Your task to perform on an android device: toggle location history Image 0: 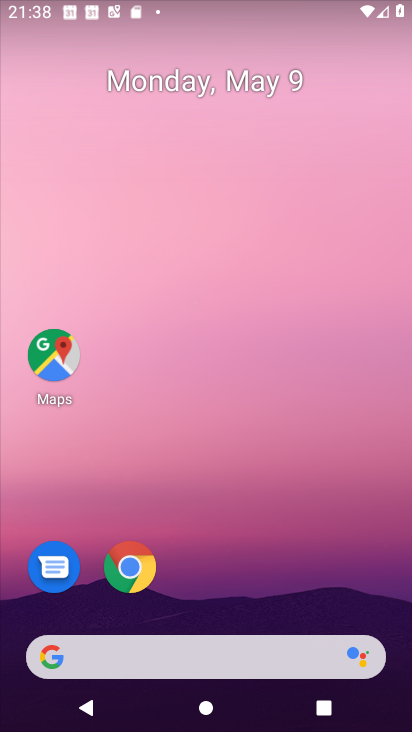
Step 0: drag from (228, 604) to (342, 130)
Your task to perform on an android device: toggle location history Image 1: 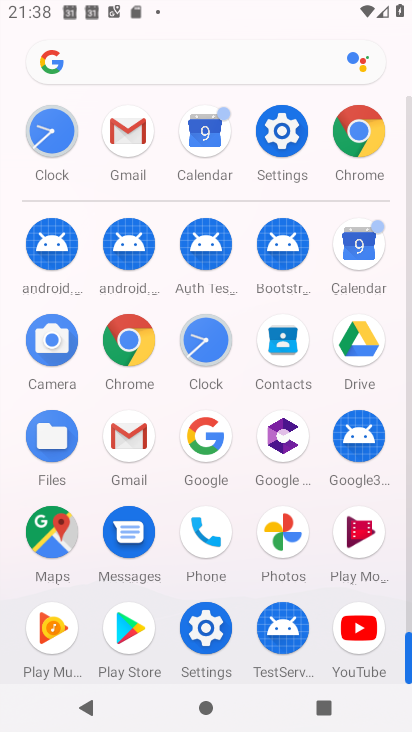
Step 1: drag from (170, 633) to (170, 253)
Your task to perform on an android device: toggle location history Image 2: 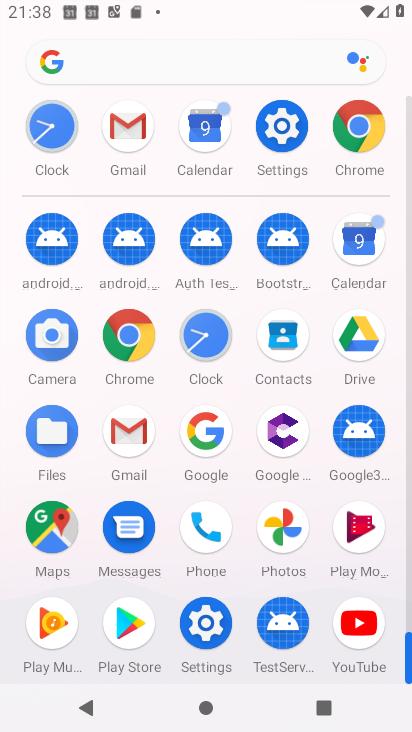
Step 2: click (194, 620)
Your task to perform on an android device: toggle location history Image 3: 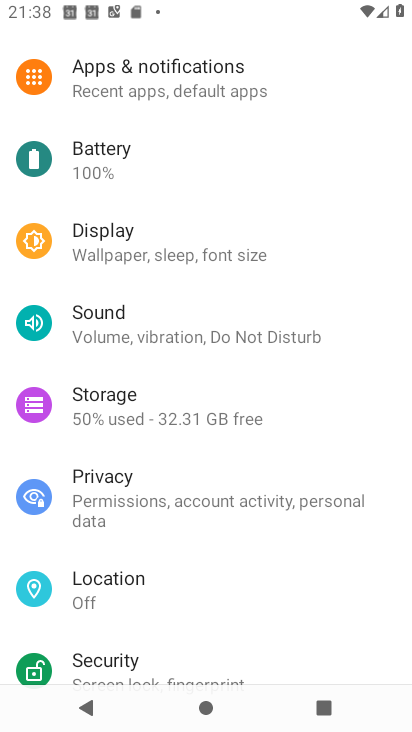
Step 3: drag from (232, 594) to (341, 173)
Your task to perform on an android device: toggle location history Image 4: 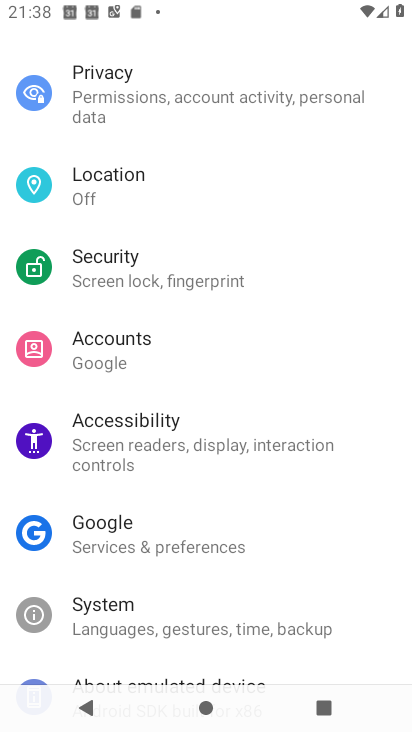
Step 4: click (141, 190)
Your task to perform on an android device: toggle location history Image 5: 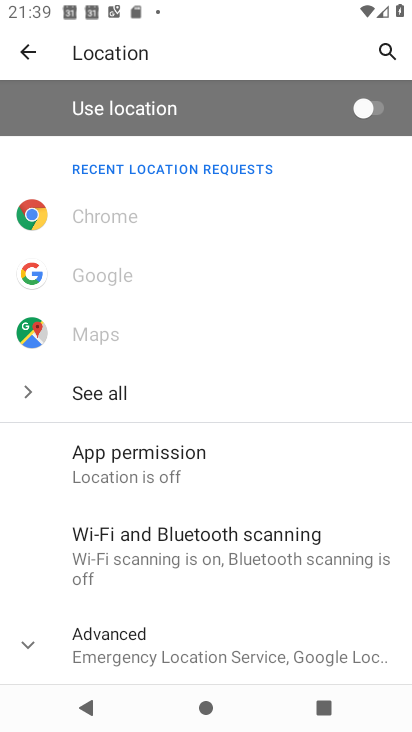
Step 5: drag from (163, 596) to (267, 258)
Your task to perform on an android device: toggle location history Image 6: 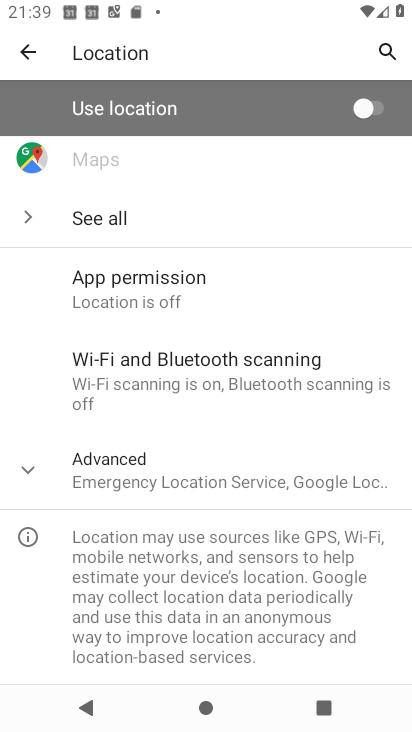
Step 6: click (187, 531)
Your task to perform on an android device: toggle location history Image 7: 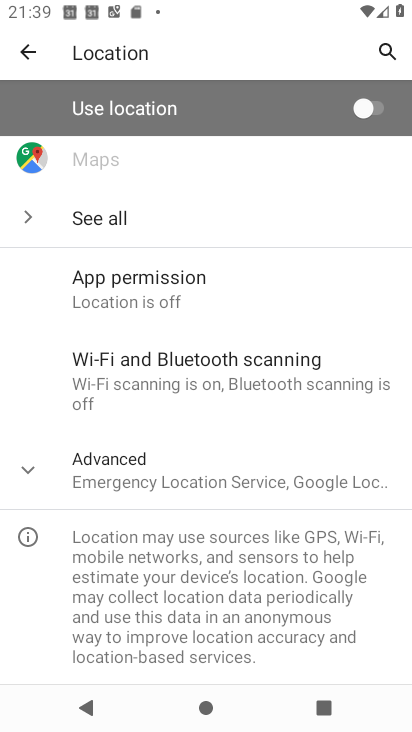
Step 7: click (152, 468)
Your task to perform on an android device: toggle location history Image 8: 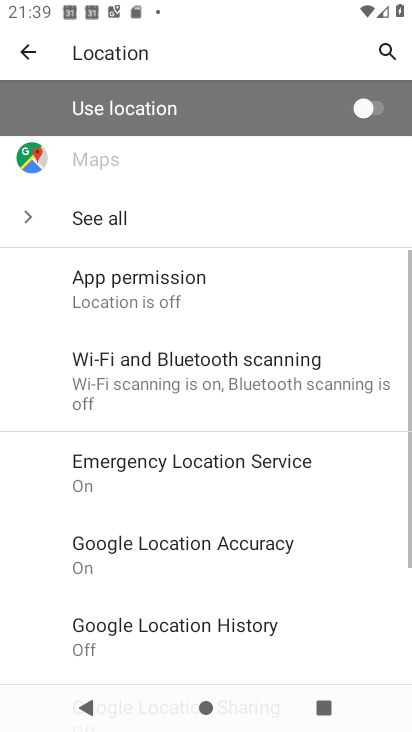
Step 8: drag from (268, 543) to (322, 272)
Your task to perform on an android device: toggle location history Image 9: 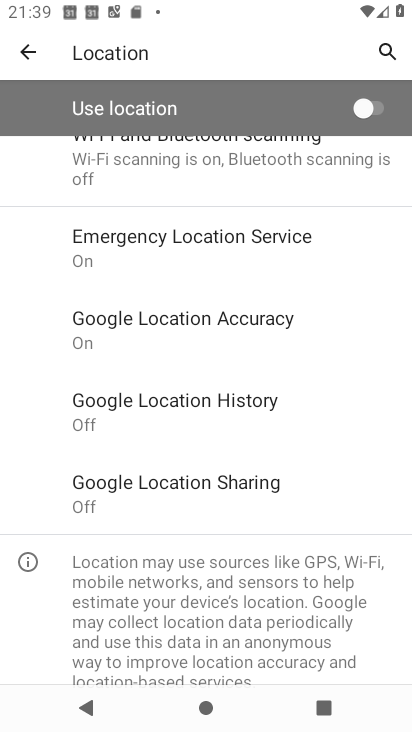
Step 9: click (274, 403)
Your task to perform on an android device: toggle location history Image 10: 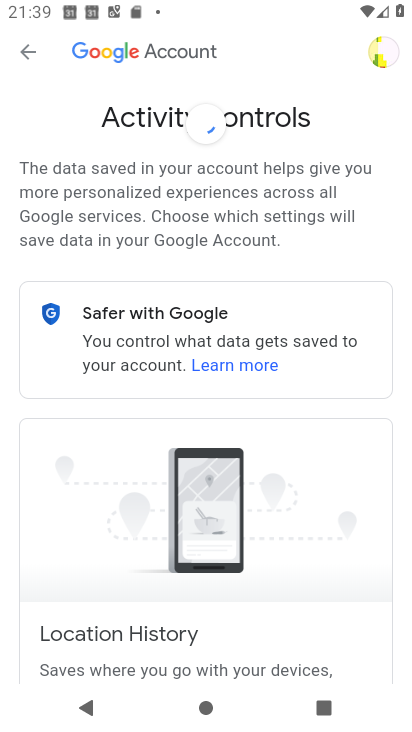
Step 10: drag from (263, 566) to (351, 251)
Your task to perform on an android device: toggle location history Image 11: 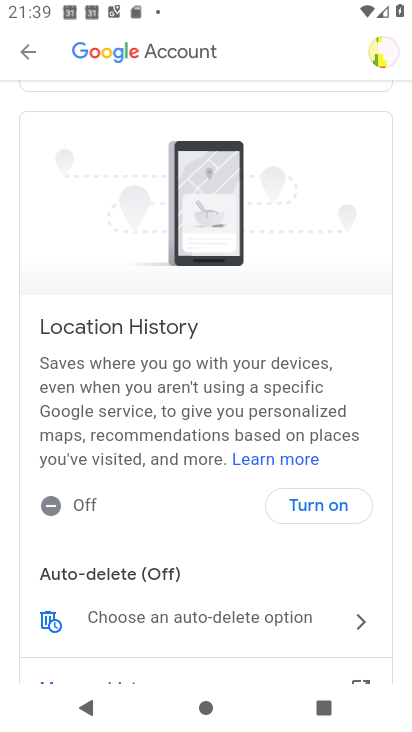
Step 11: drag from (252, 602) to (328, 417)
Your task to perform on an android device: toggle location history Image 12: 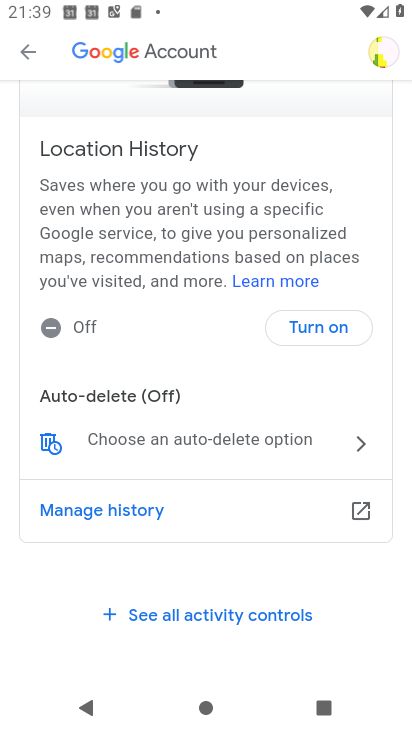
Step 12: click (303, 319)
Your task to perform on an android device: toggle location history Image 13: 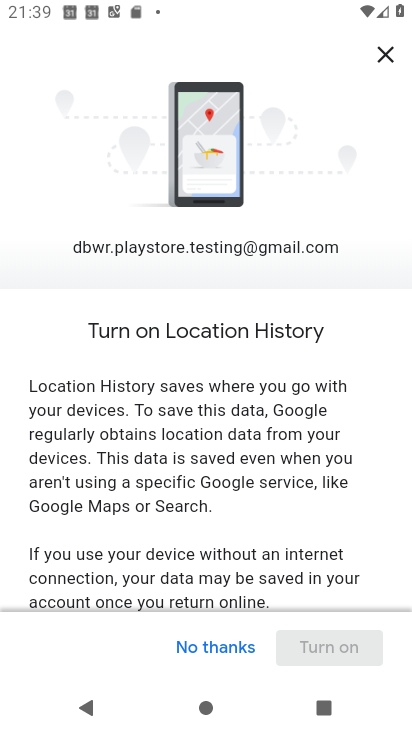
Step 13: drag from (218, 536) to (300, 157)
Your task to perform on an android device: toggle location history Image 14: 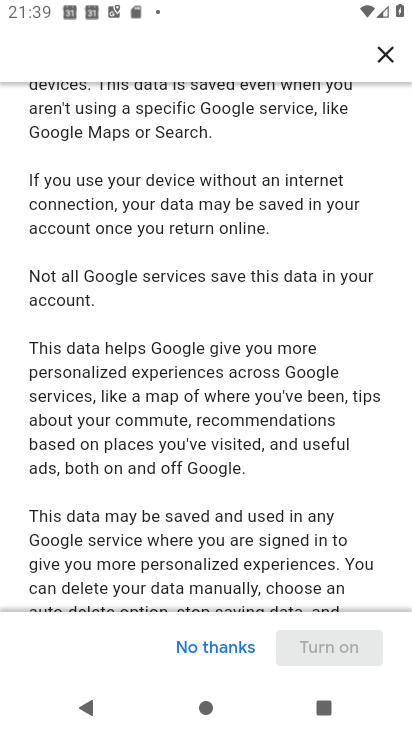
Step 14: drag from (175, 563) to (292, 156)
Your task to perform on an android device: toggle location history Image 15: 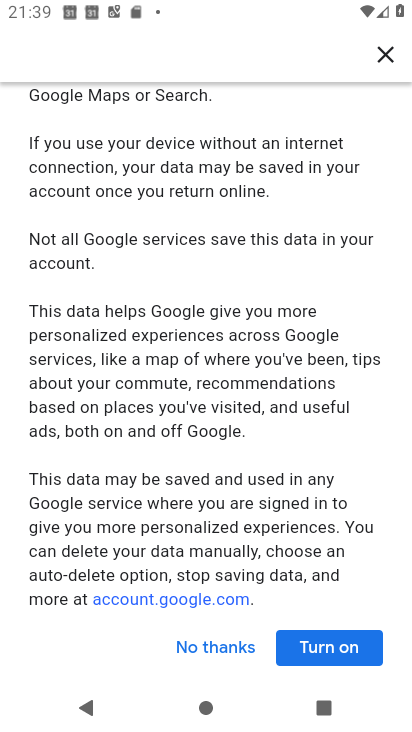
Step 15: click (326, 659)
Your task to perform on an android device: toggle location history Image 16: 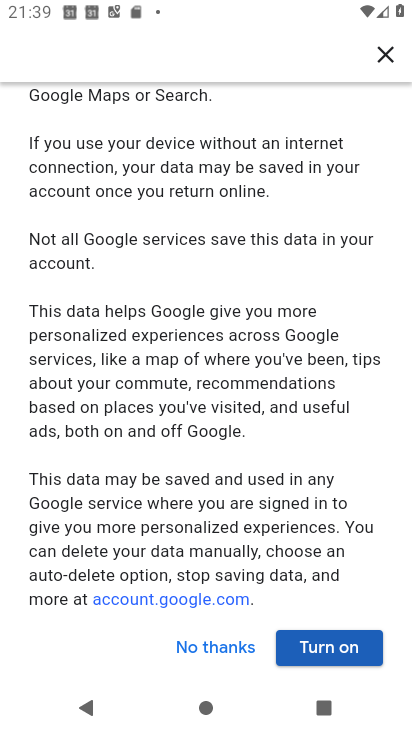
Step 16: click (319, 652)
Your task to perform on an android device: toggle location history Image 17: 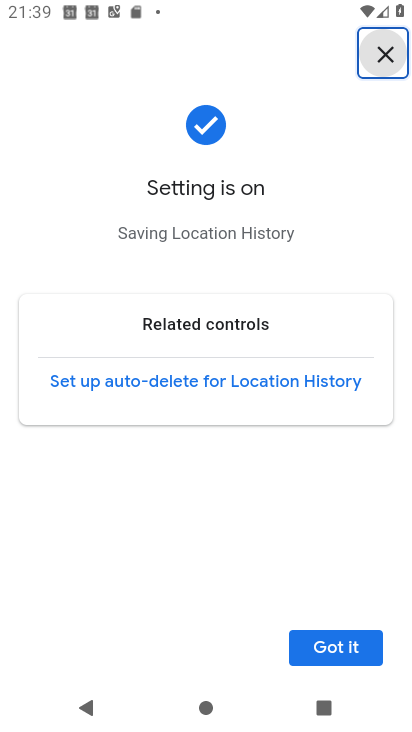
Step 17: click (314, 656)
Your task to perform on an android device: toggle location history Image 18: 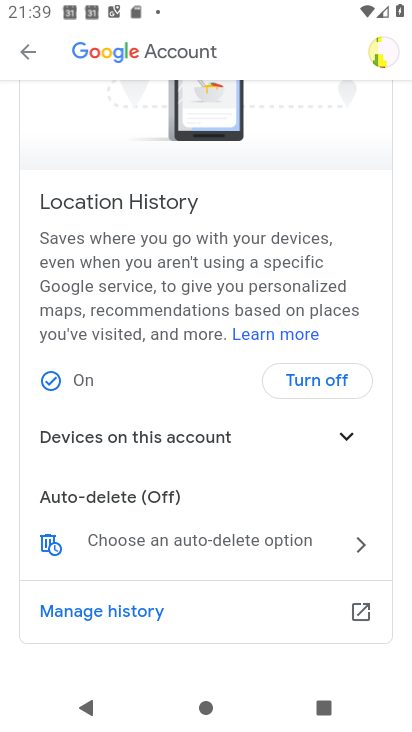
Step 18: task complete